Your task to perform on an android device: check data usage Image 0: 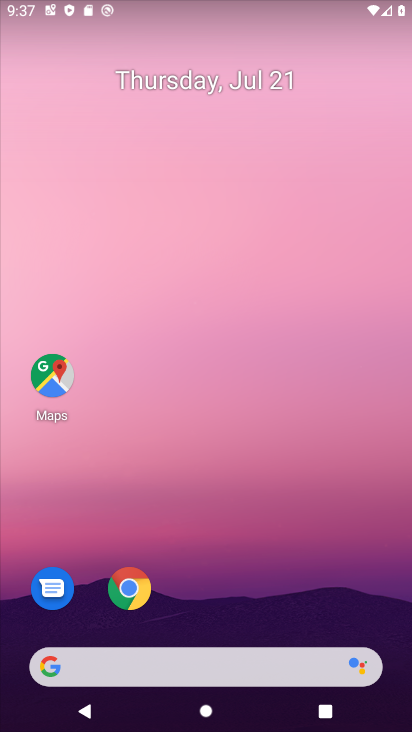
Step 0: drag from (286, 619) to (298, 90)
Your task to perform on an android device: check data usage Image 1: 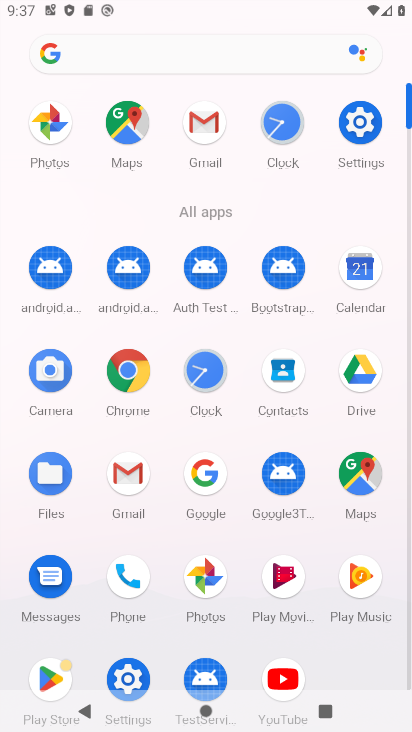
Step 1: click (363, 118)
Your task to perform on an android device: check data usage Image 2: 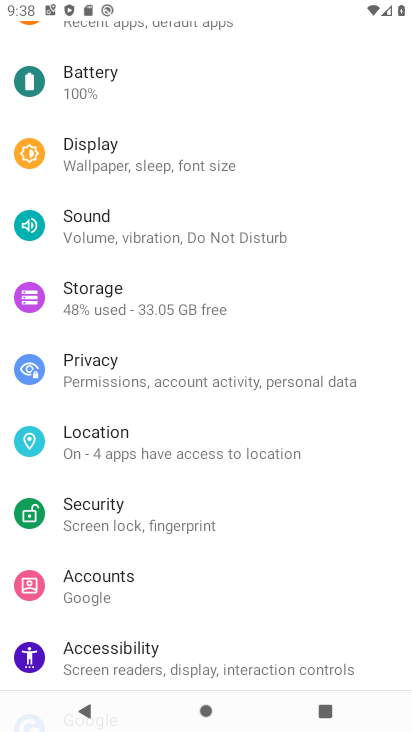
Step 2: drag from (131, 112) to (215, 534)
Your task to perform on an android device: check data usage Image 3: 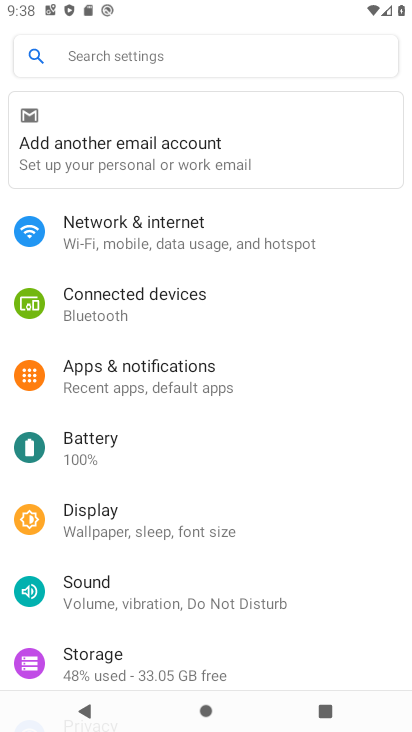
Step 3: click (167, 231)
Your task to perform on an android device: check data usage Image 4: 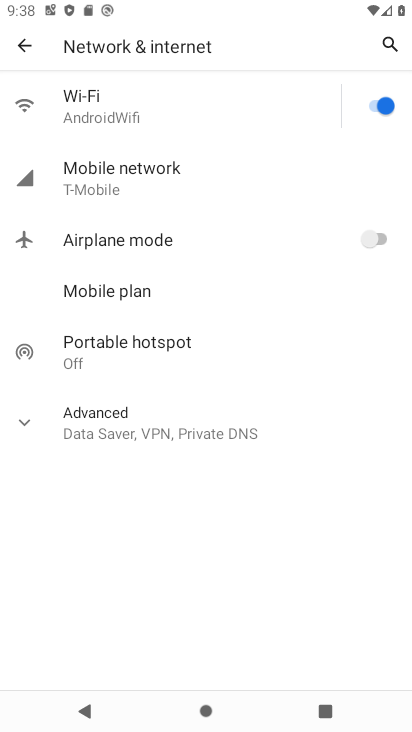
Step 4: click (114, 181)
Your task to perform on an android device: check data usage Image 5: 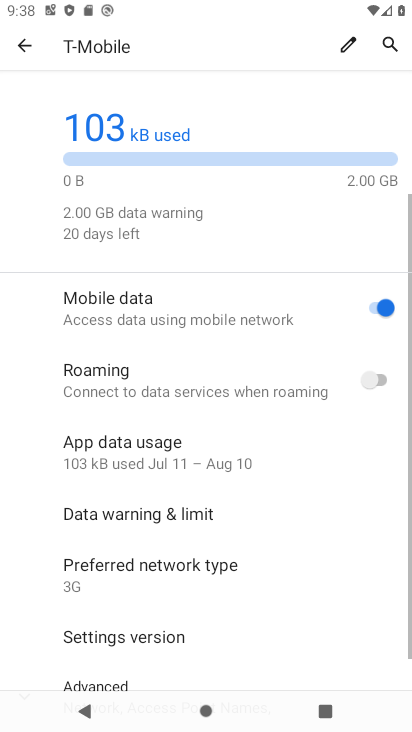
Step 5: task complete